Your task to perform on an android device: What's the weather today? Image 0: 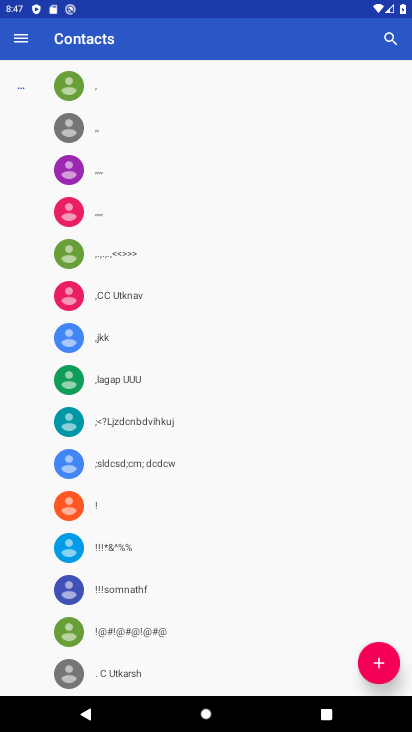
Step 0: press back button
Your task to perform on an android device: What's the weather today? Image 1: 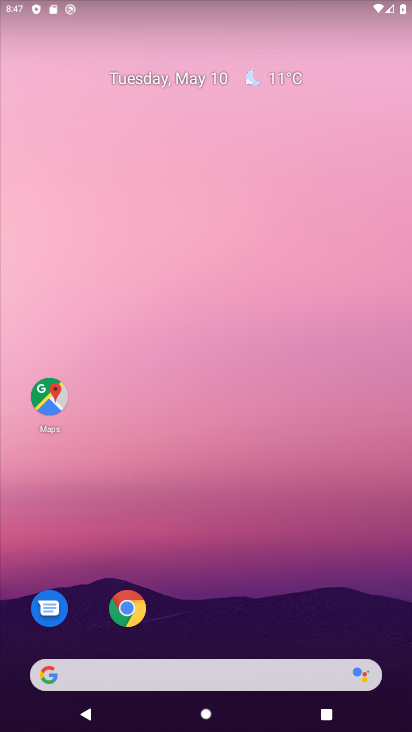
Step 1: drag from (225, 563) to (232, 24)
Your task to perform on an android device: What's the weather today? Image 2: 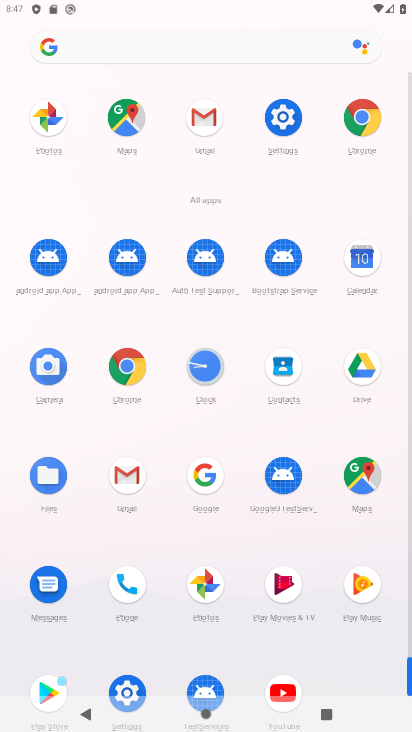
Step 2: click (201, 473)
Your task to perform on an android device: What's the weather today? Image 3: 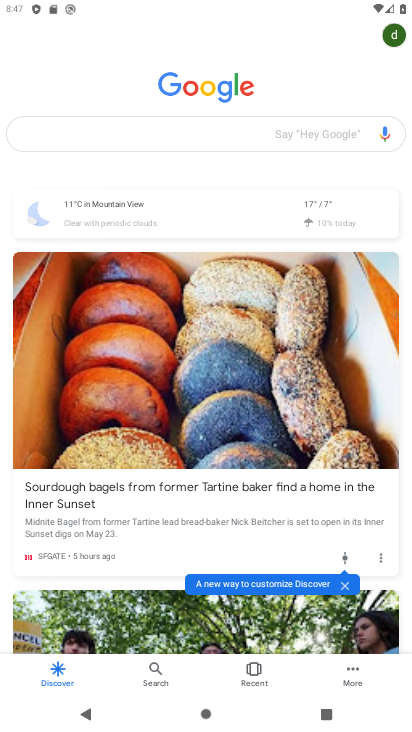
Step 3: click (211, 134)
Your task to perform on an android device: What's the weather today? Image 4: 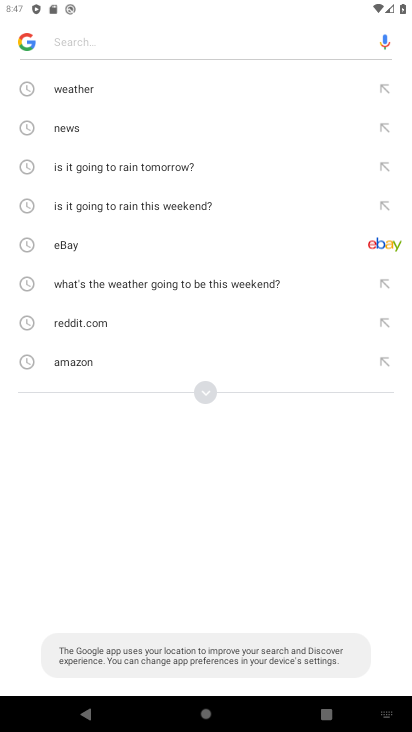
Step 4: click (64, 88)
Your task to perform on an android device: What's the weather today? Image 5: 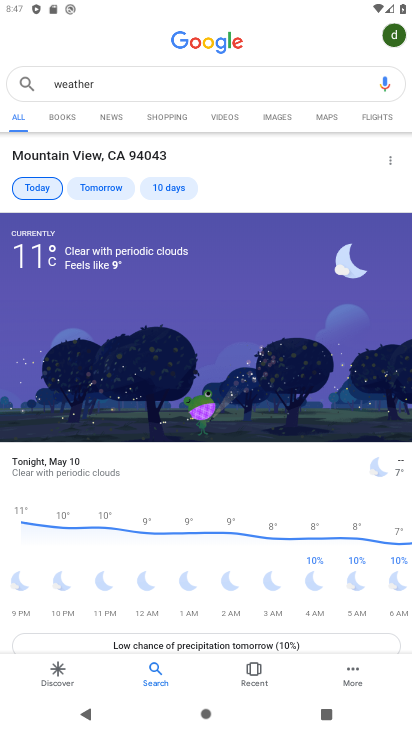
Step 5: task complete